Your task to perform on an android device: Go to accessibility settings Image 0: 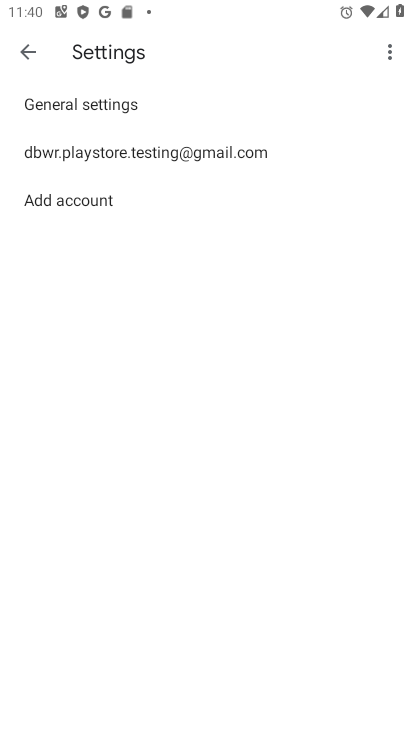
Step 0: press home button
Your task to perform on an android device: Go to accessibility settings Image 1: 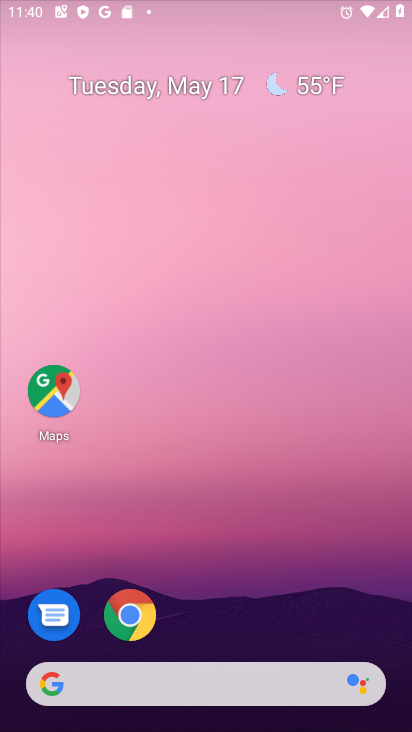
Step 1: drag from (293, 611) to (255, 65)
Your task to perform on an android device: Go to accessibility settings Image 2: 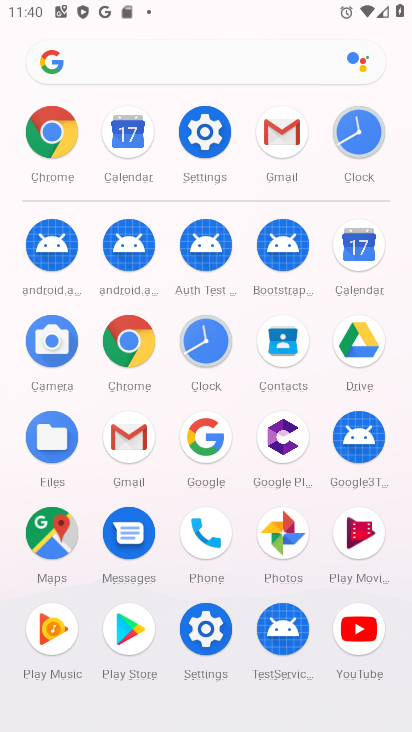
Step 2: click (201, 114)
Your task to perform on an android device: Go to accessibility settings Image 3: 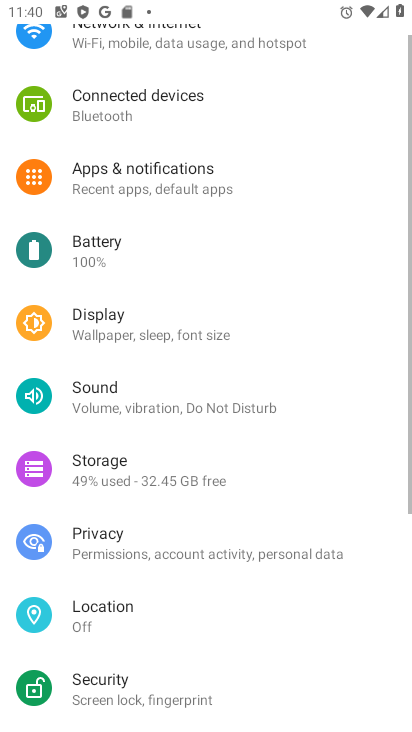
Step 3: drag from (259, 624) to (314, 121)
Your task to perform on an android device: Go to accessibility settings Image 4: 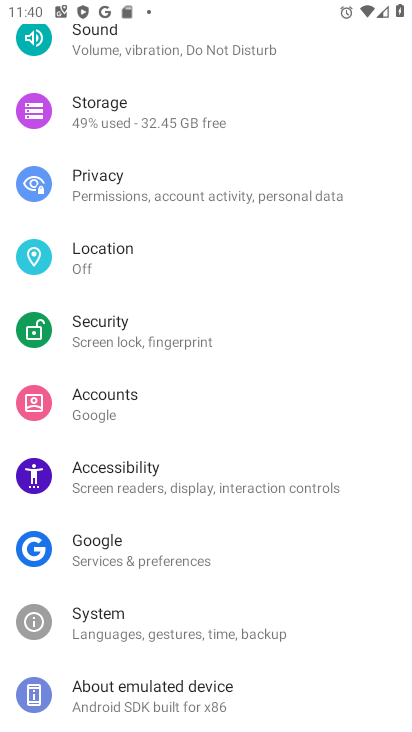
Step 4: click (156, 491)
Your task to perform on an android device: Go to accessibility settings Image 5: 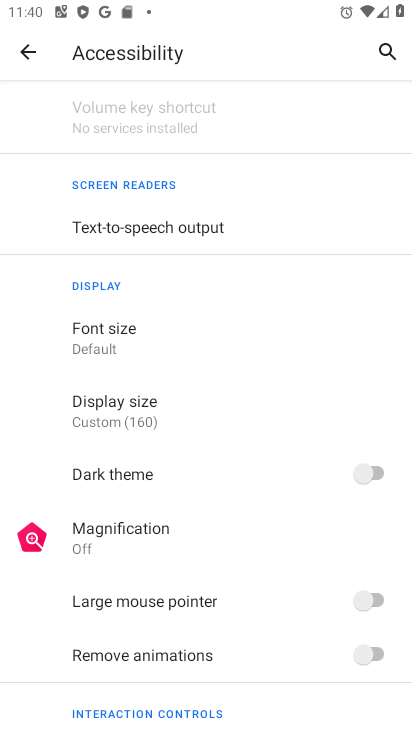
Step 5: task complete